Your task to perform on an android device: Open ESPN.com Image 0: 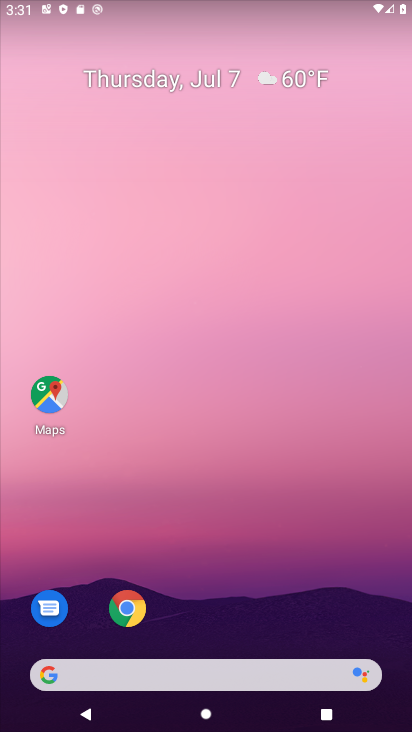
Step 0: click (138, 624)
Your task to perform on an android device: Open ESPN.com Image 1: 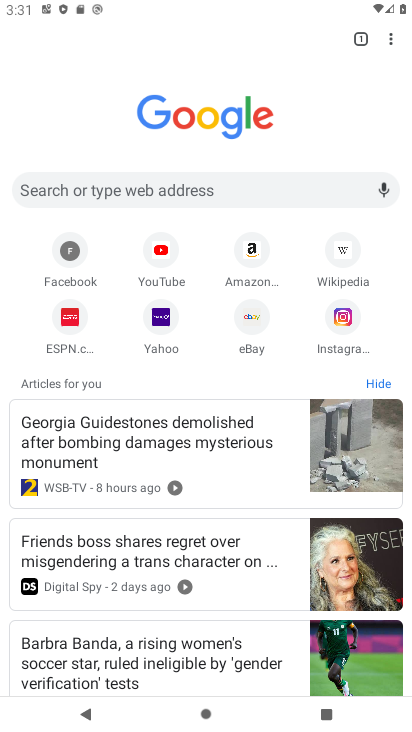
Step 1: click (56, 321)
Your task to perform on an android device: Open ESPN.com Image 2: 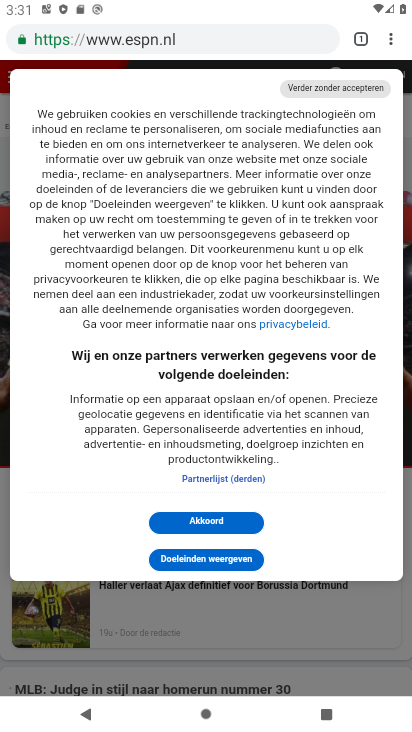
Step 2: task complete